Your task to perform on an android device: turn off smart reply in the gmail app Image 0: 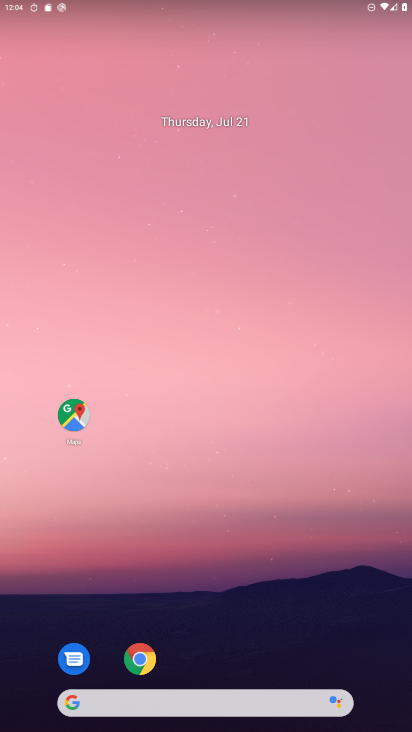
Step 0: drag from (338, 609) to (236, 47)
Your task to perform on an android device: turn off smart reply in the gmail app Image 1: 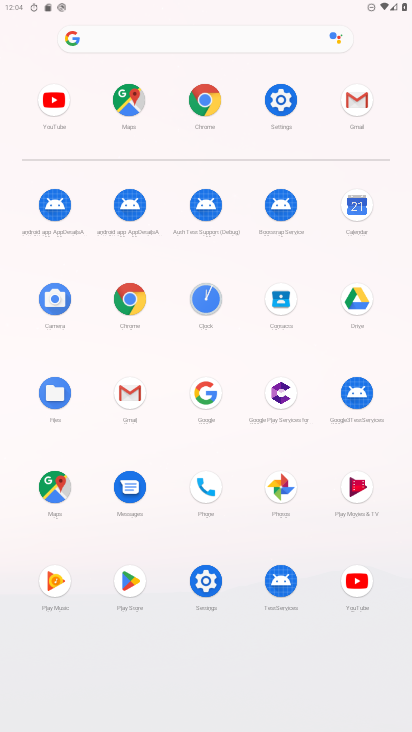
Step 1: click (350, 108)
Your task to perform on an android device: turn off smart reply in the gmail app Image 2: 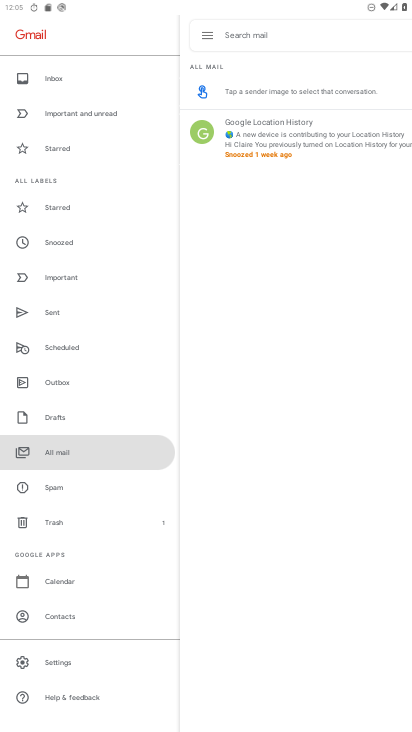
Step 2: click (71, 656)
Your task to perform on an android device: turn off smart reply in the gmail app Image 3: 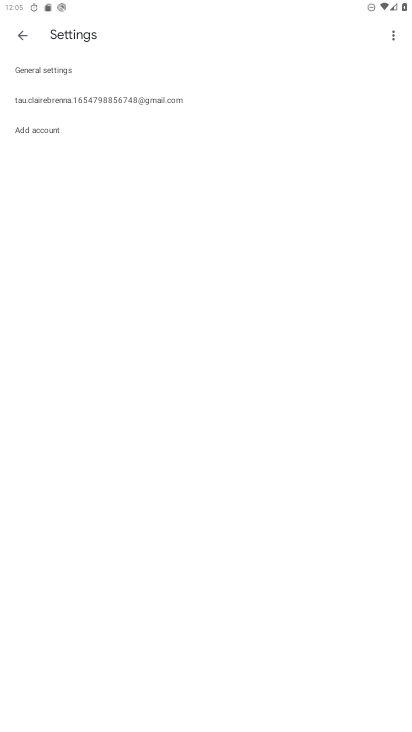
Step 3: click (111, 107)
Your task to perform on an android device: turn off smart reply in the gmail app Image 4: 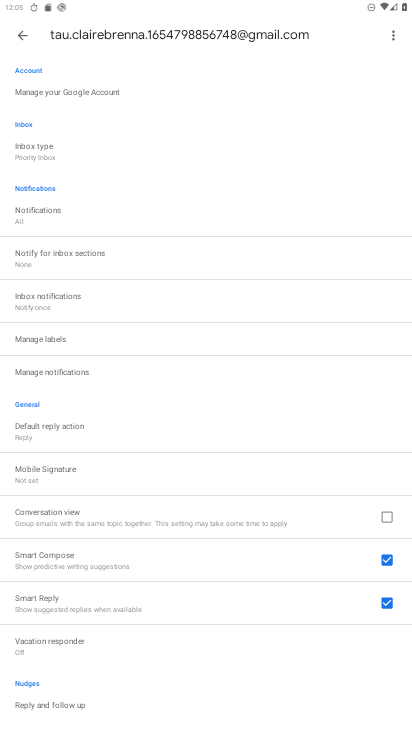
Step 4: click (386, 603)
Your task to perform on an android device: turn off smart reply in the gmail app Image 5: 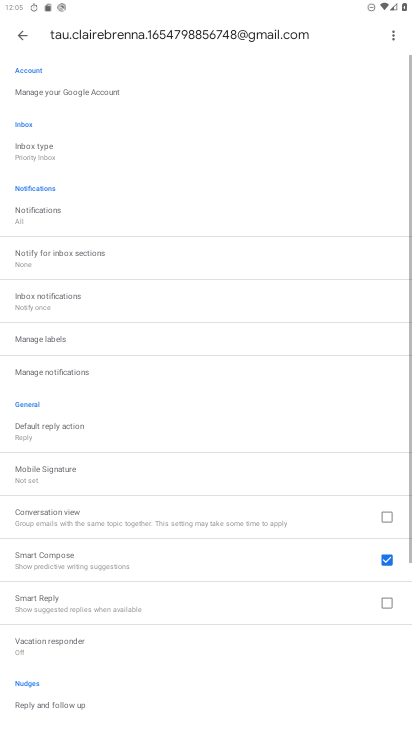
Step 5: task complete